Your task to perform on an android device: Open battery settings Image 0: 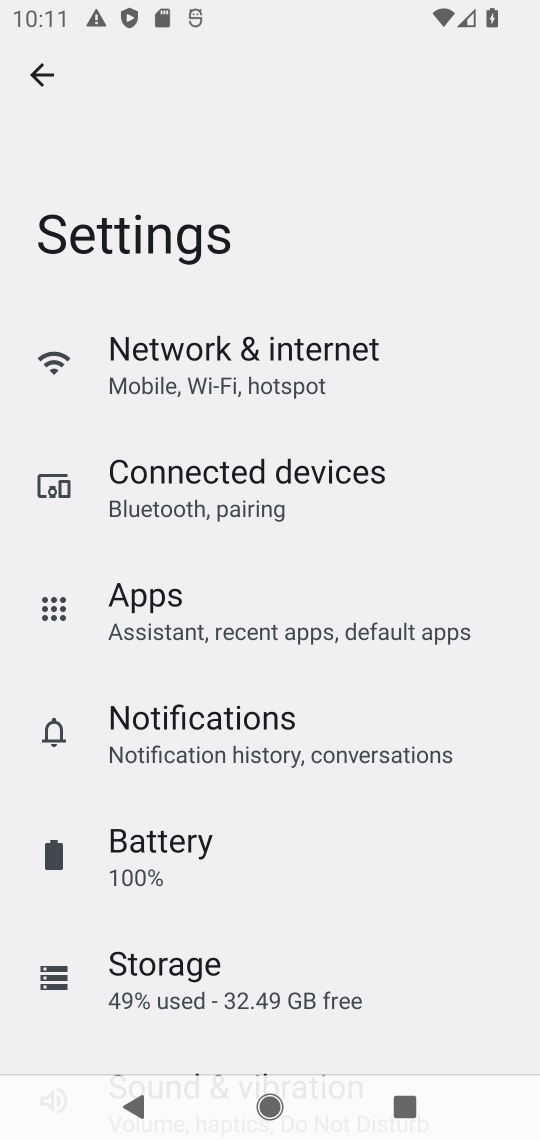
Step 0: press home button
Your task to perform on an android device: Open battery settings Image 1: 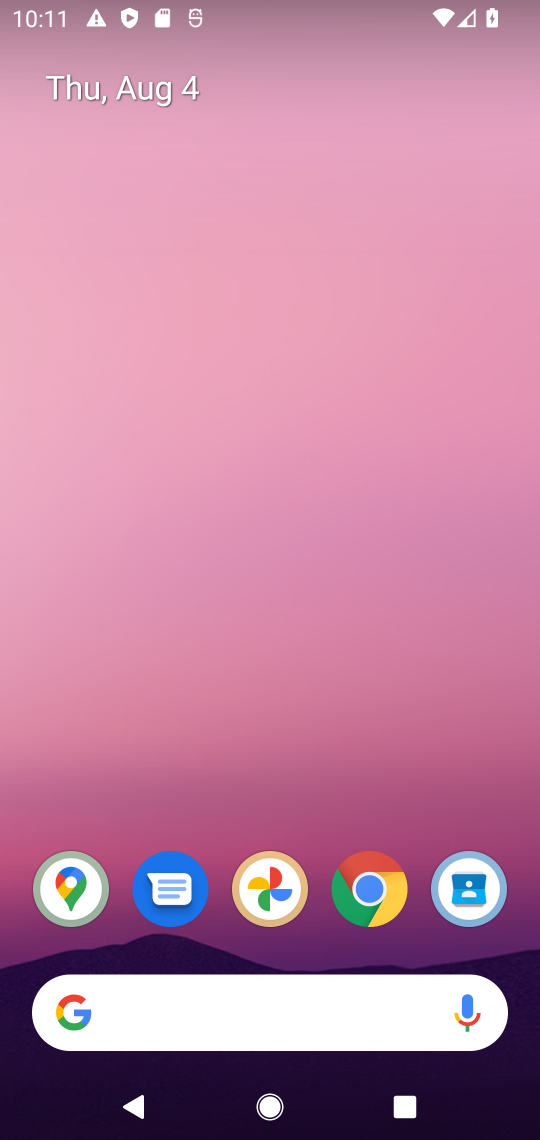
Step 1: drag from (311, 750) to (316, 312)
Your task to perform on an android device: Open battery settings Image 2: 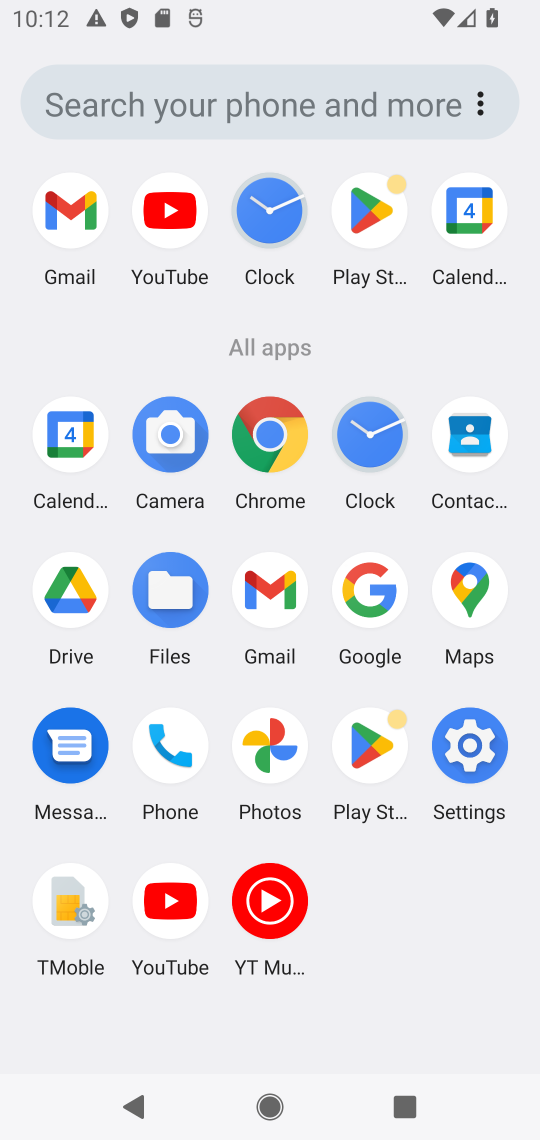
Step 2: click (479, 745)
Your task to perform on an android device: Open battery settings Image 3: 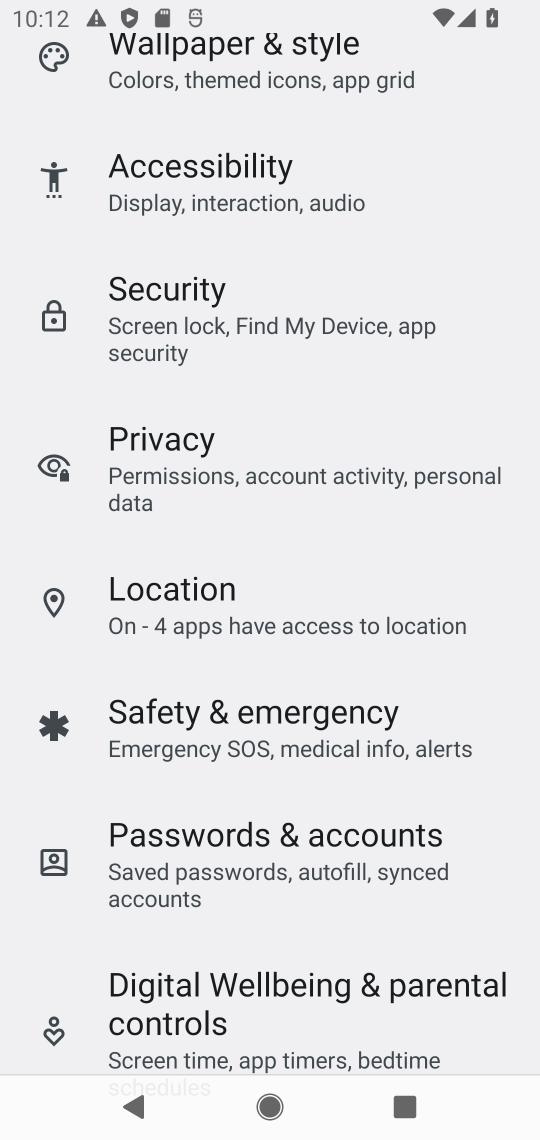
Step 3: drag from (494, 571) to (494, 702)
Your task to perform on an android device: Open battery settings Image 4: 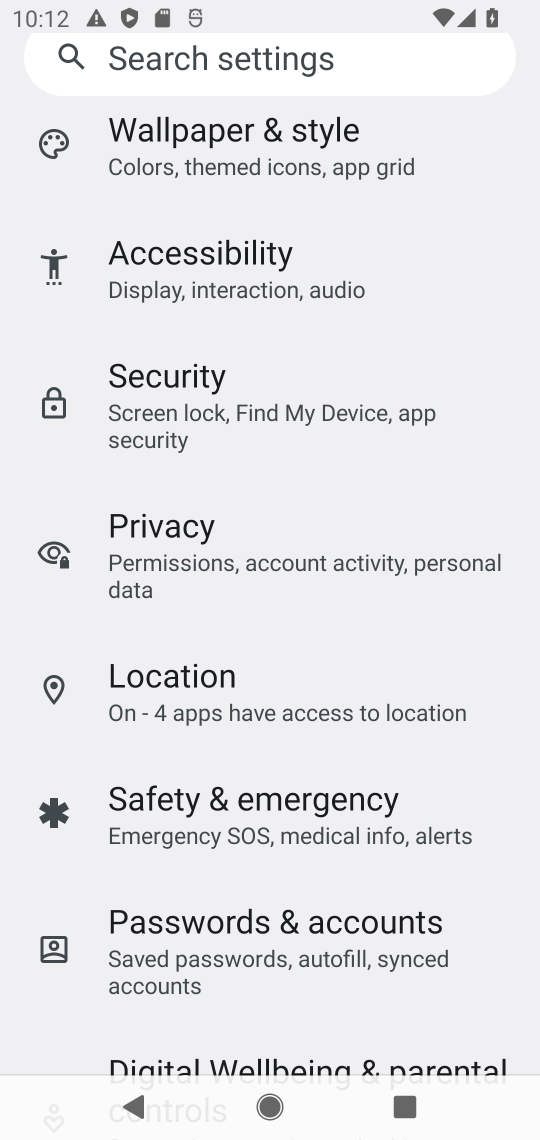
Step 4: drag from (491, 530) to (491, 667)
Your task to perform on an android device: Open battery settings Image 5: 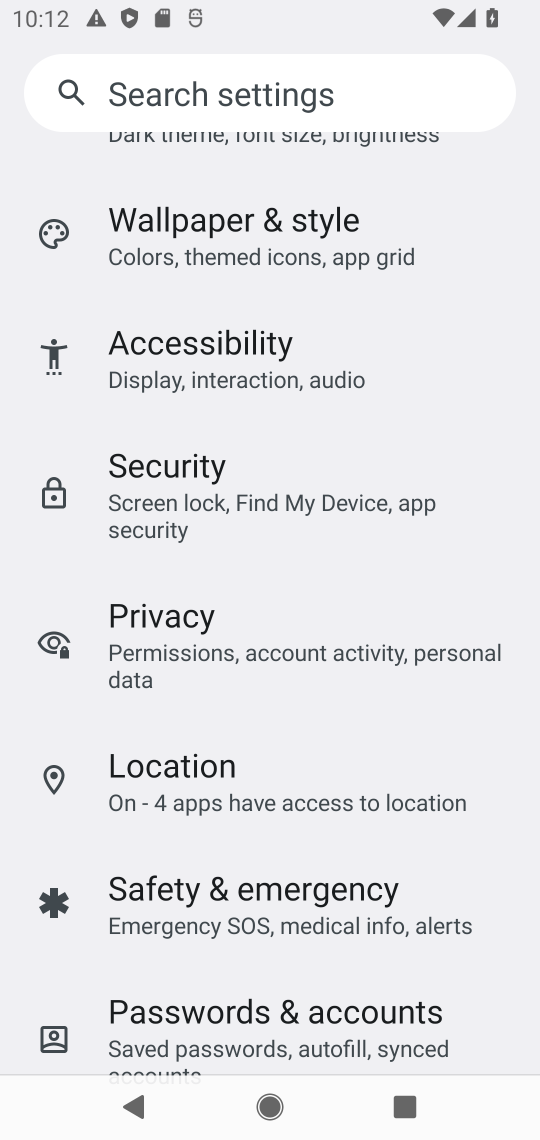
Step 5: drag from (484, 516) to (484, 618)
Your task to perform on an android device: Open battery settings Image 6: 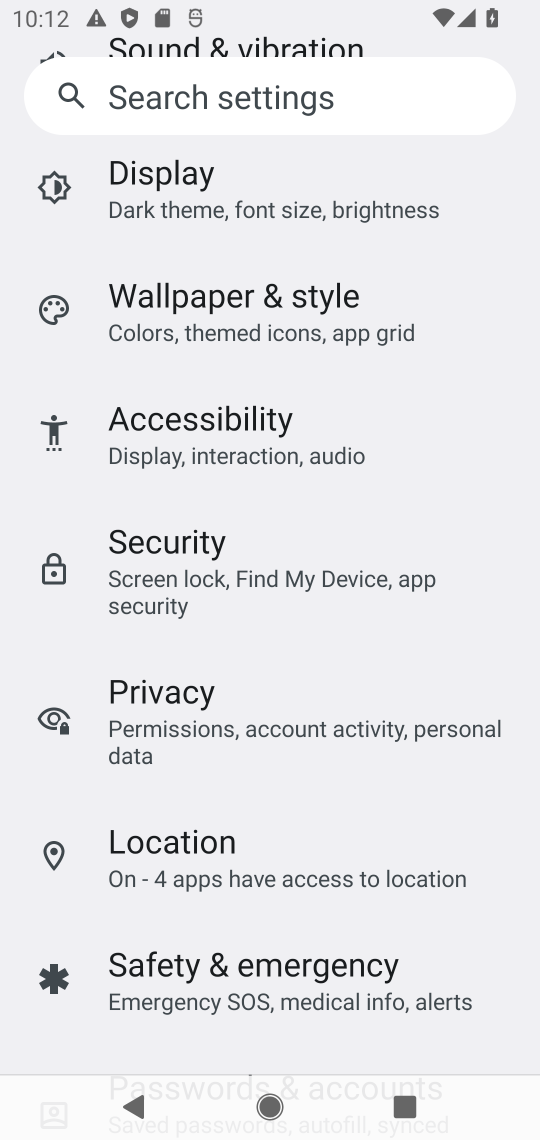
Step 6: drag from (481, 484) to (476, 646)
Your task to perform on an android device: Open battery settings Image 7: 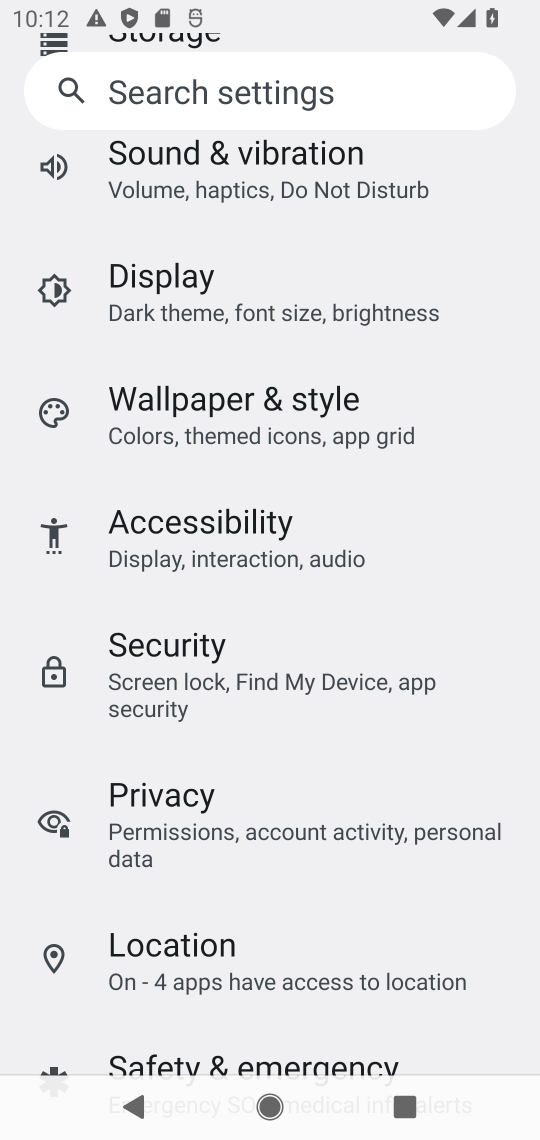
Step 7: drag from (488, 511) to (486, 667)
Your task to perform on an android device: Open battery settings Image 8: 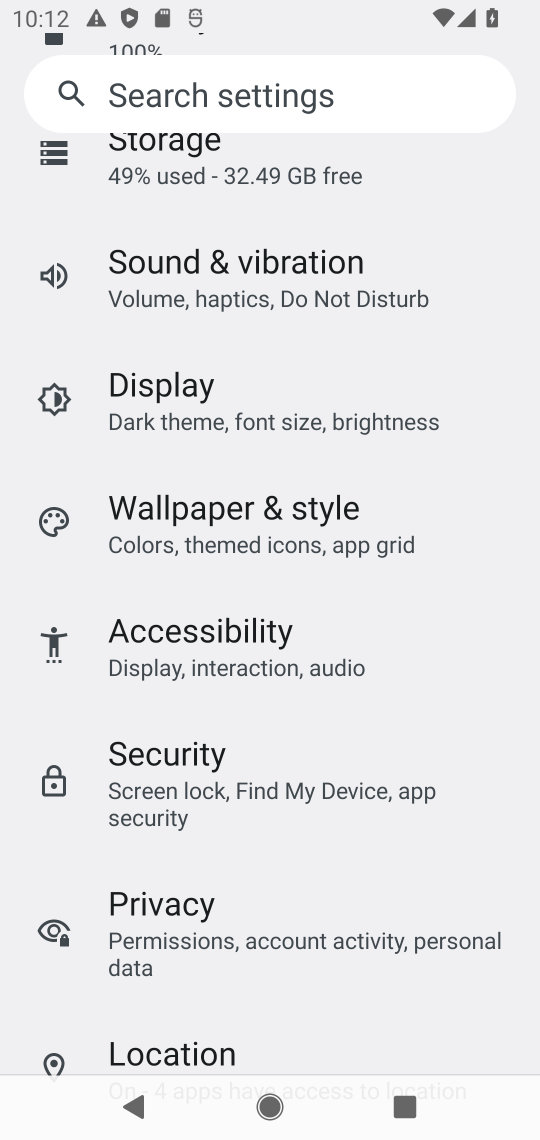
Step 8: drag from (492, 420) to (474, 597)
Your task to perform on an android device: Open battery settings Image 9: 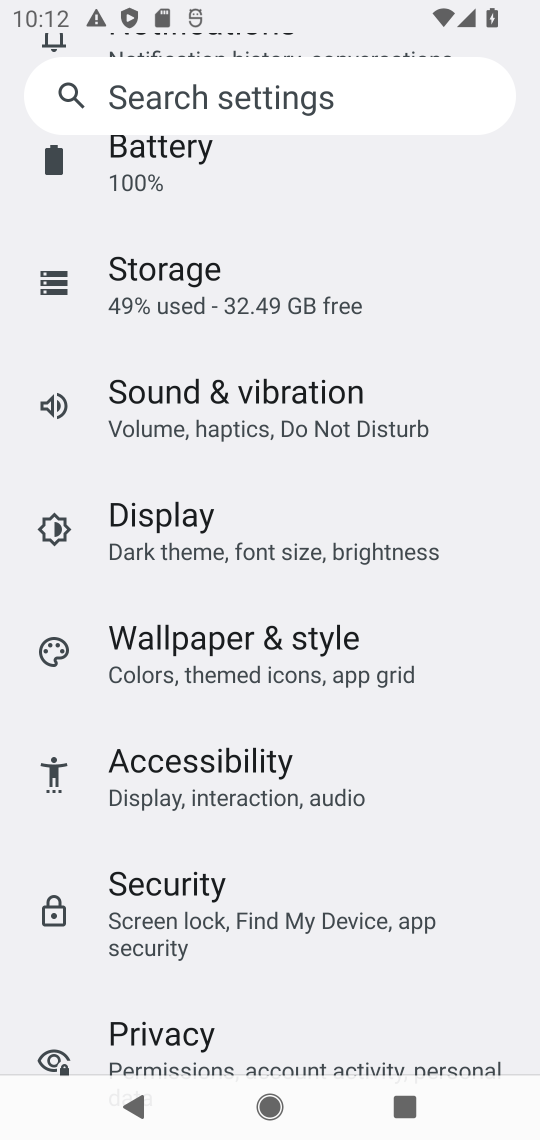
Step 9: drag from (478, 368) to (470, 601)
Your task to perform on an android device: Open battery settings Image 10: 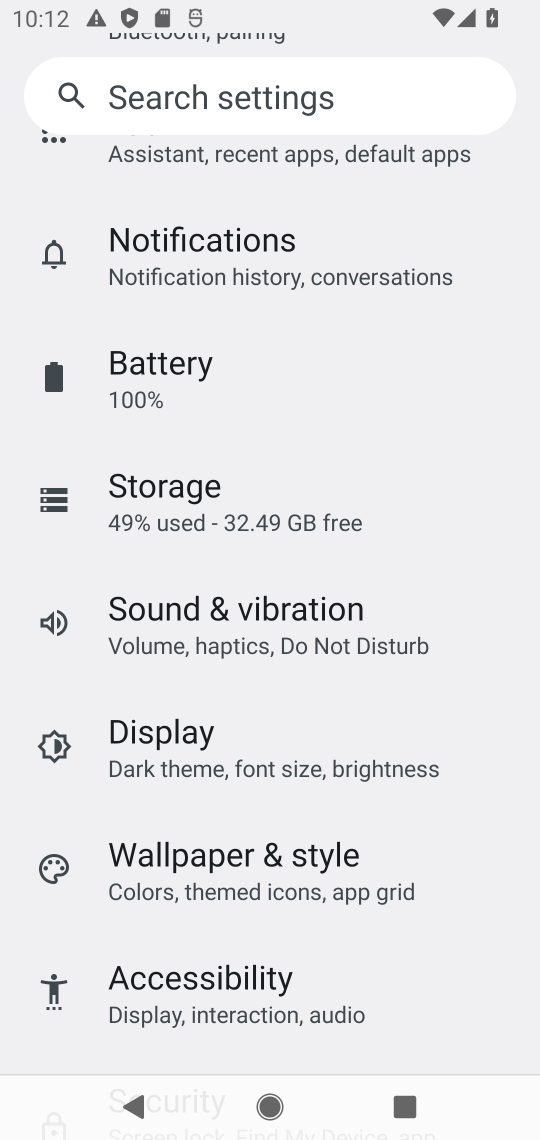
Step 10: drag from (467, 389) to (461, 651)
Your task to perform on an android device: Open battery settings Image 11: 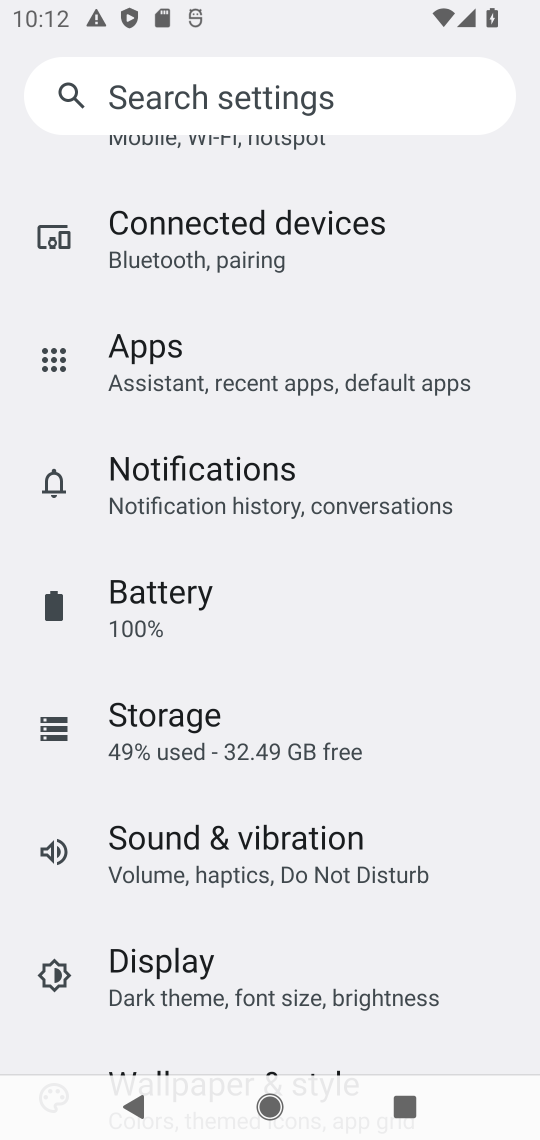
Step 11: click (334, 636)
Your task to perform on an android device: Open battery settings Image 12: 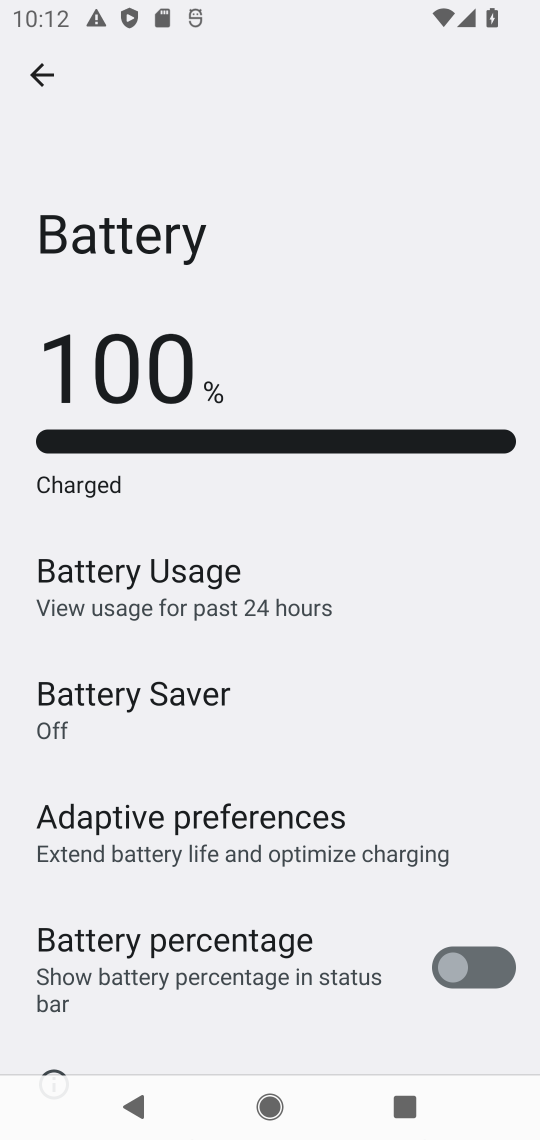
Step 12: task complete